Your task to perform on an android device: Go to CNN.com Image 0: 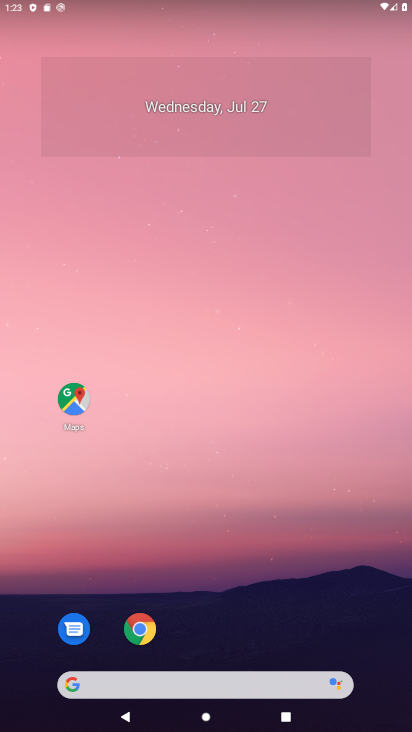
Step 0: press home button
Your task to perform on an android device: Go to CNN.com Image 1: 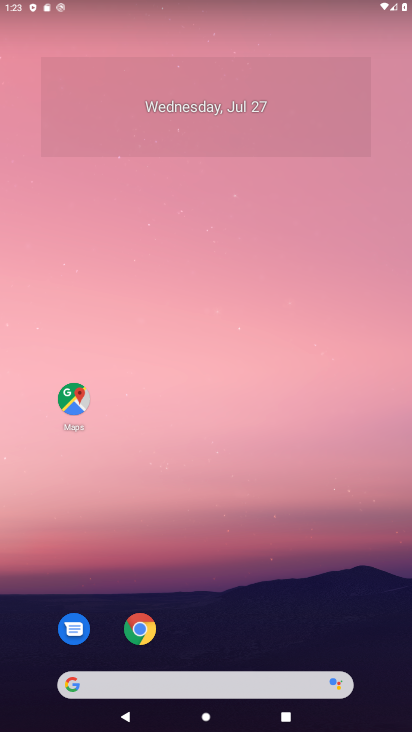
Step 1: click (95, 688)
Your task to perform on an android device: Go to CNN.com Image 2: 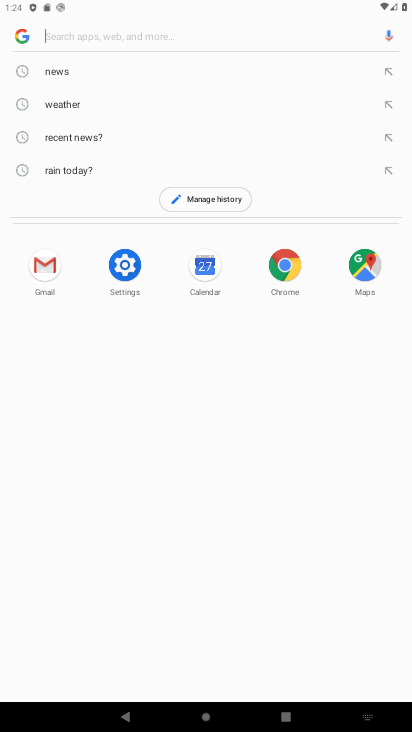
Step 2: type "CNN.com"
Your task to perform on an android device: Go to CNN.com Image 3: 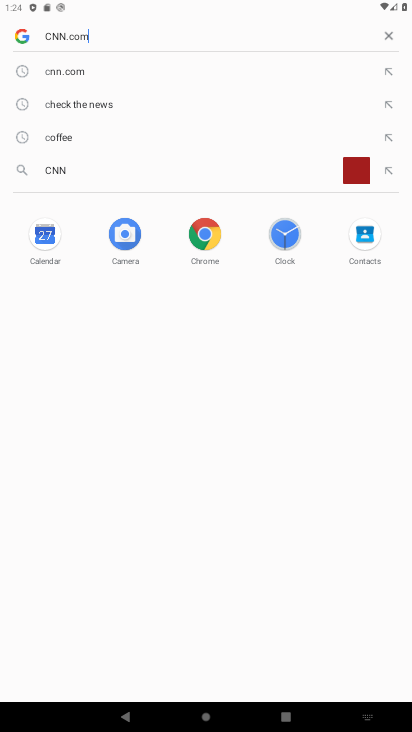
Step 3: press enter
Your task to perform on an android device: Go to CNN.com Image 4: 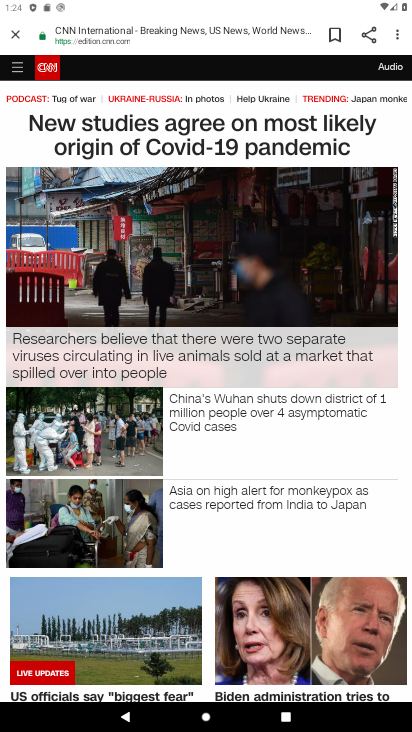
Step 4: task complete